Your task to perform on an android device: change the clock style Image 0: 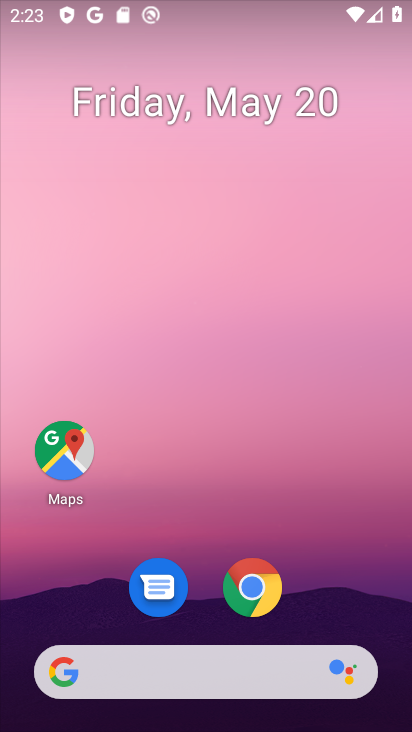
Step 0: drag from (214, 613) to (243, 236)
Your task to perform on an android device: change the clock style Image 1: 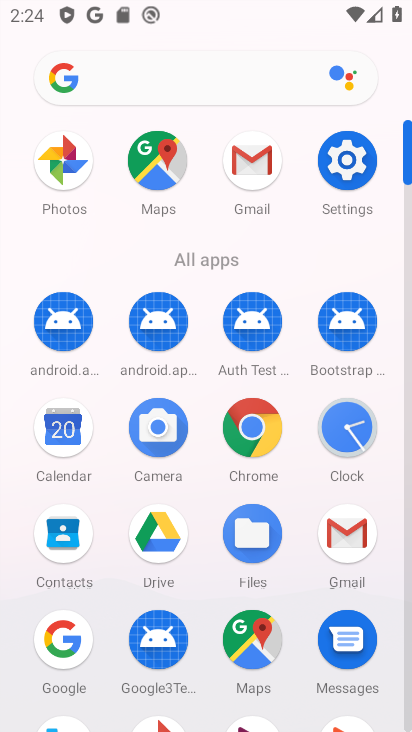
Step 1: click (348, 445)
Your task to perform on an android device: change the clock style Image 2: 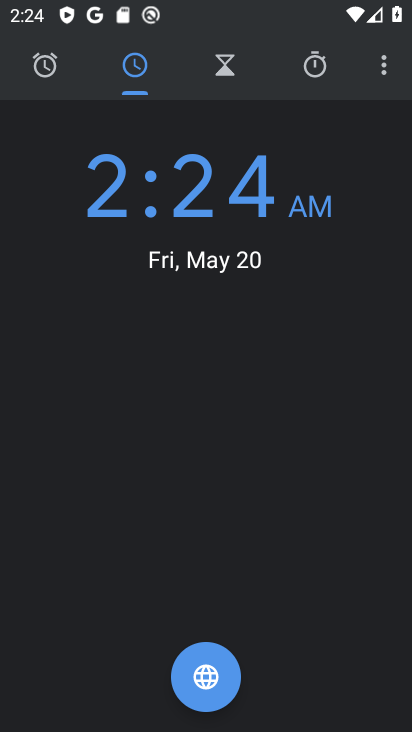
Step 2: click (383, 64)
Your task to perform on an android device: change the clock style Image 3: 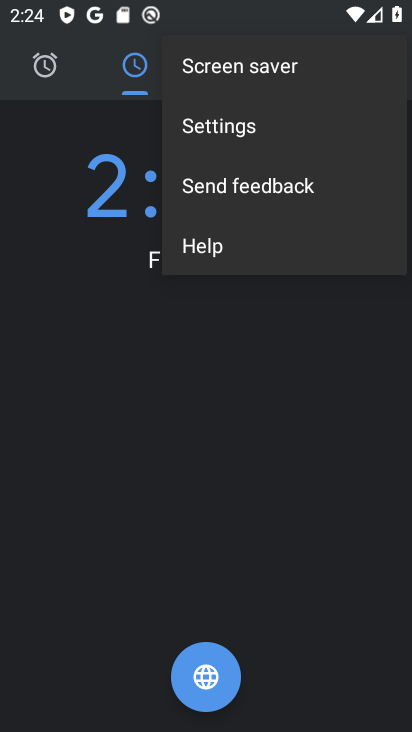
Step 3: click (227, 131)
Your task to perform on an android device: change the clock style Image 4: 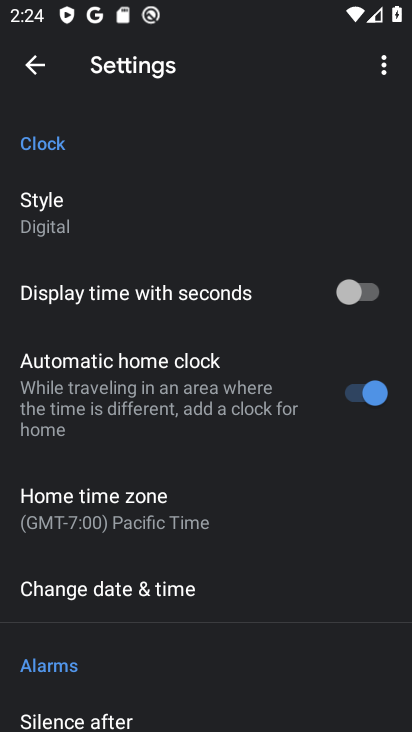
Step 4: click (75, 234)
Your task to perform on an android device: change the clock style Image 5: 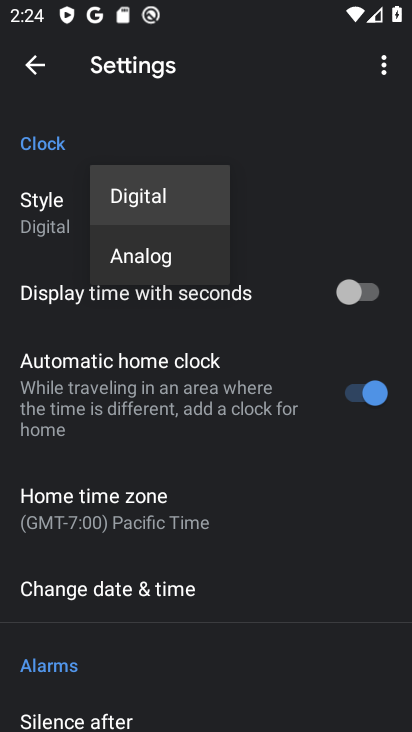
Step 5: click (105, 261)
Your task to perform on an android device: change the clock style Image 6: 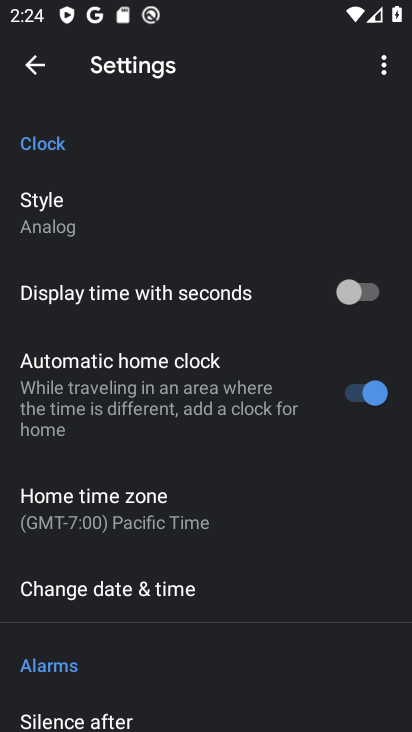
Step 6: task complete